Your task to perform on an android device: open app "Facebook" Image 0: 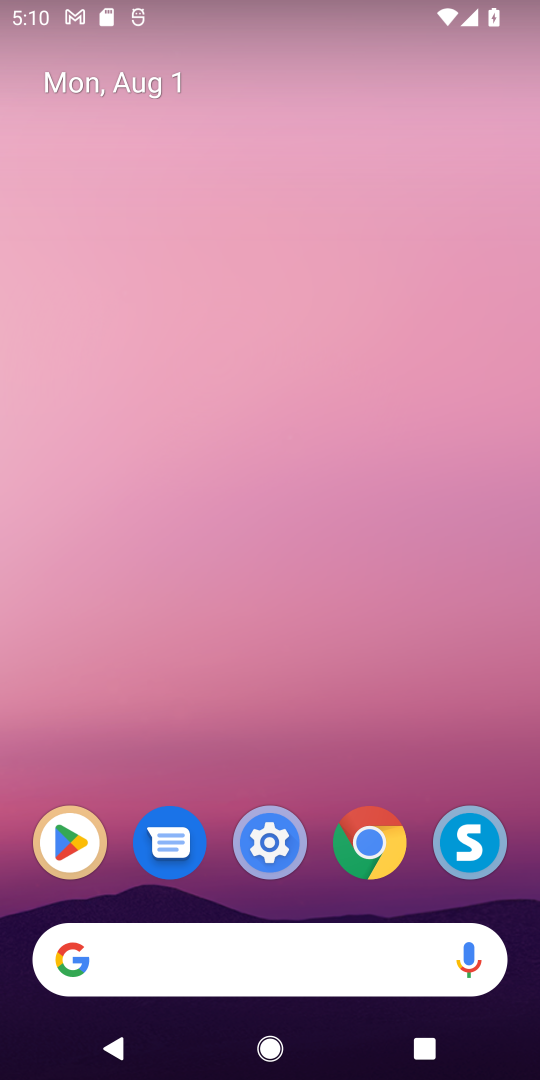
Step 0: drag from (372, 767) to (421, 49)
Your task to perform on an android device: open app "Facebook" Image 1: 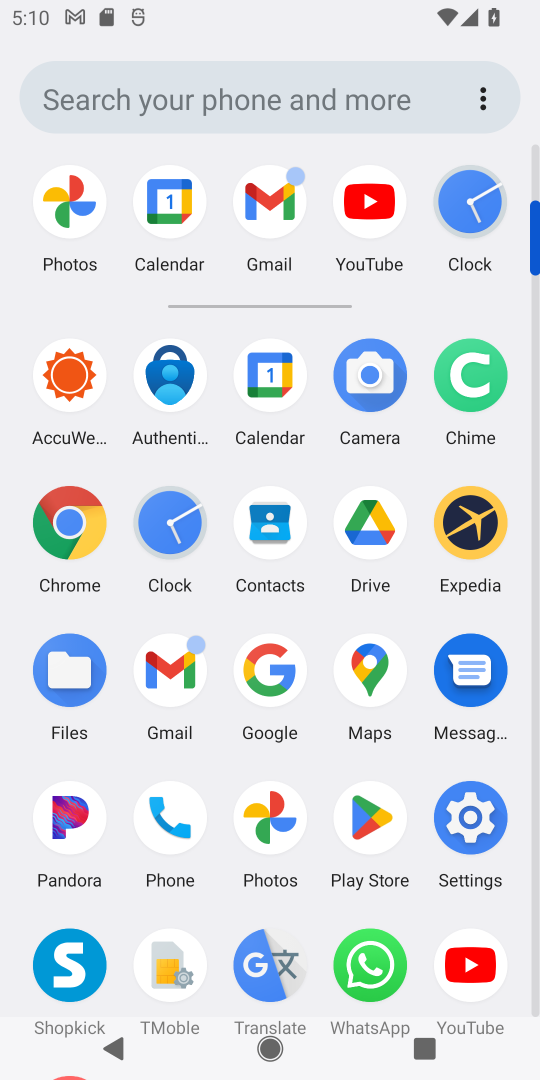
Step 1: click (366, 805)
Your task to perform on an android device: open app "Facebook" Image 2: 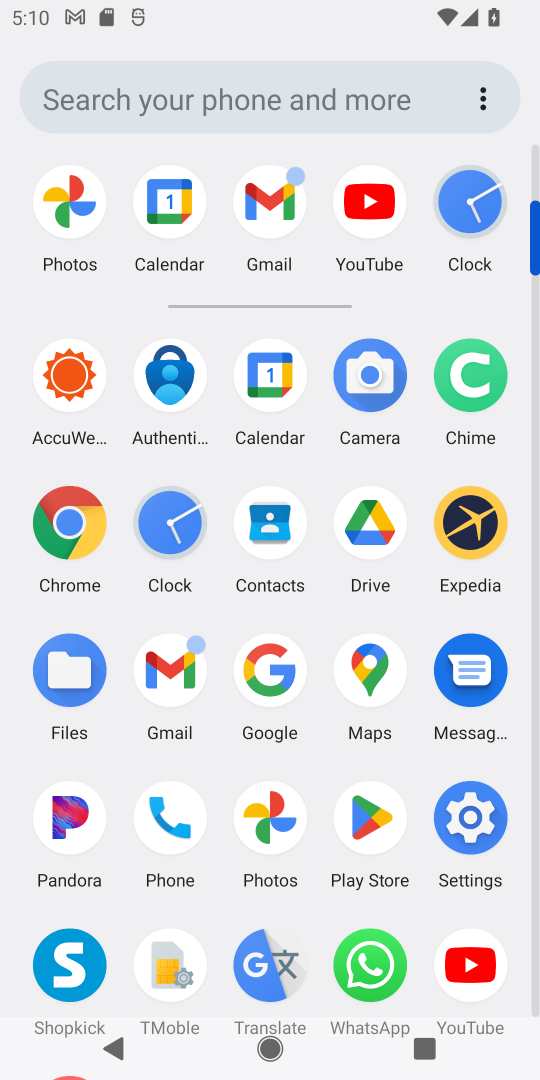
Step 2: click (398, 780)
Your task to perform on an android device: open app "Facebook" Image 3: 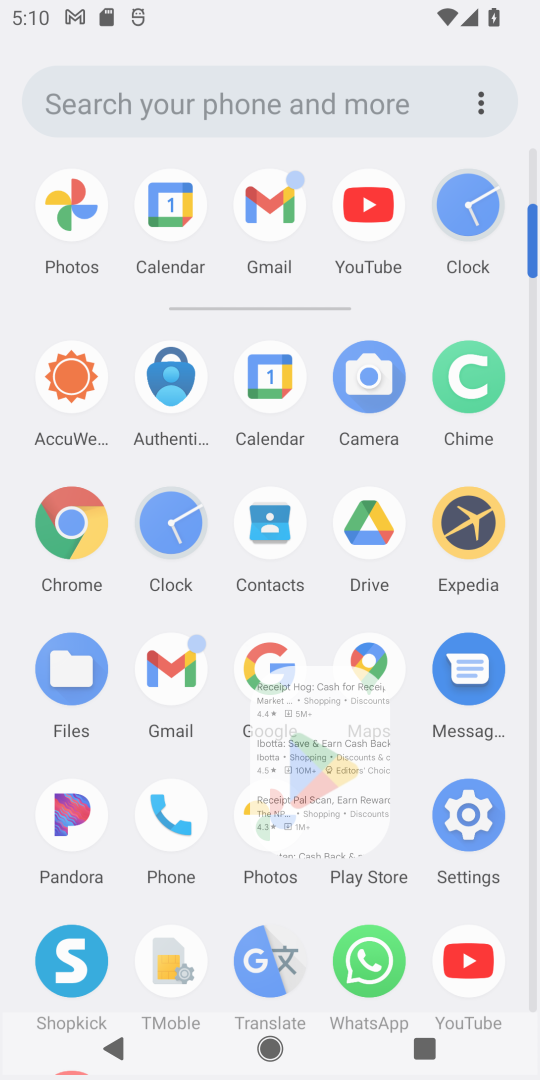
Step 3: click (399, 781)
Your task to perform on an android device: open app "Facebook" Image 4: 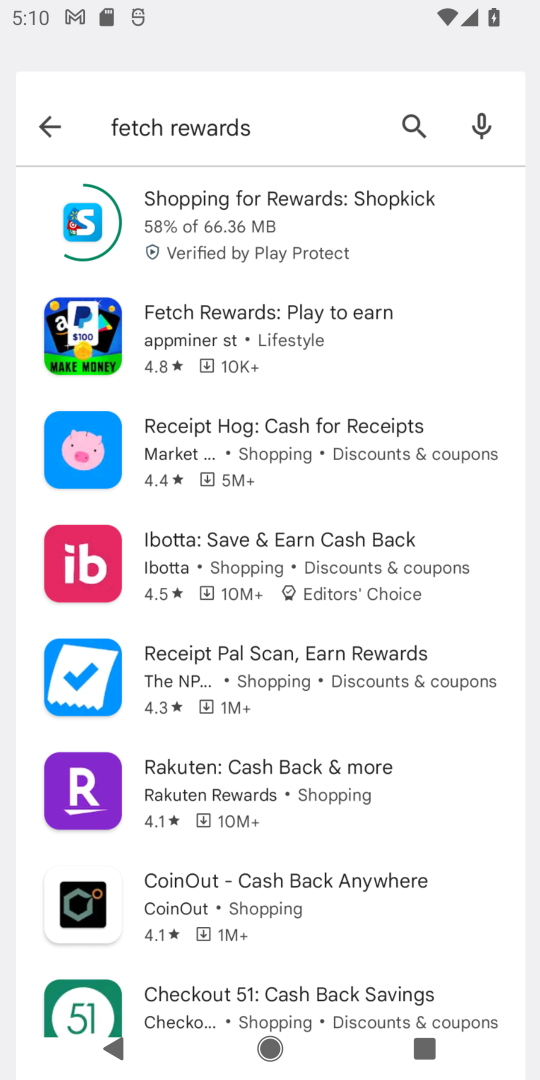
Step 4: click (399, 781)
Your task to perform on an android device: open app "Facebook" Image 5: 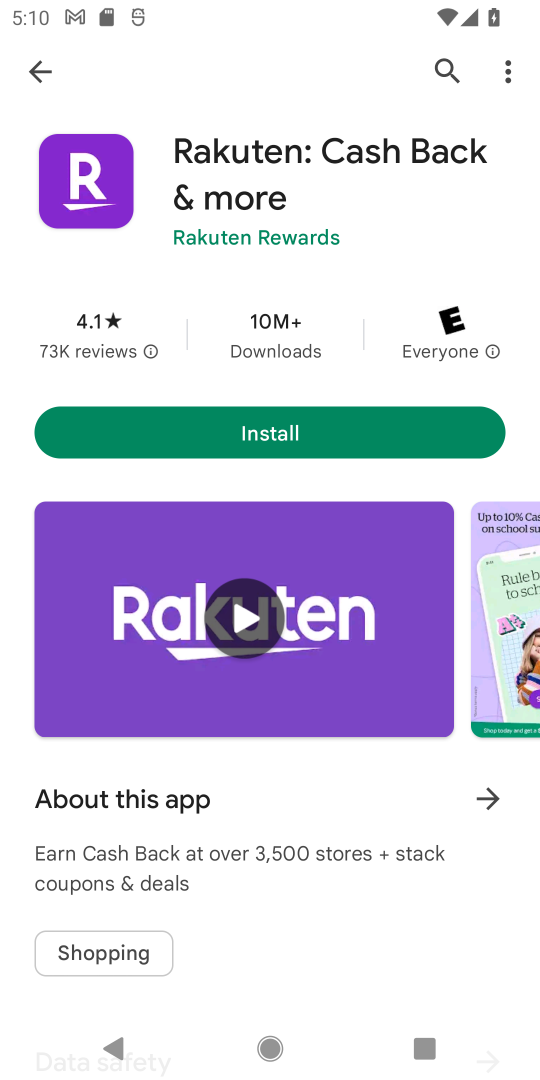
Step 5: click (29, 58)
Your task to perform on an android device: open app "Facebook" Image 6: 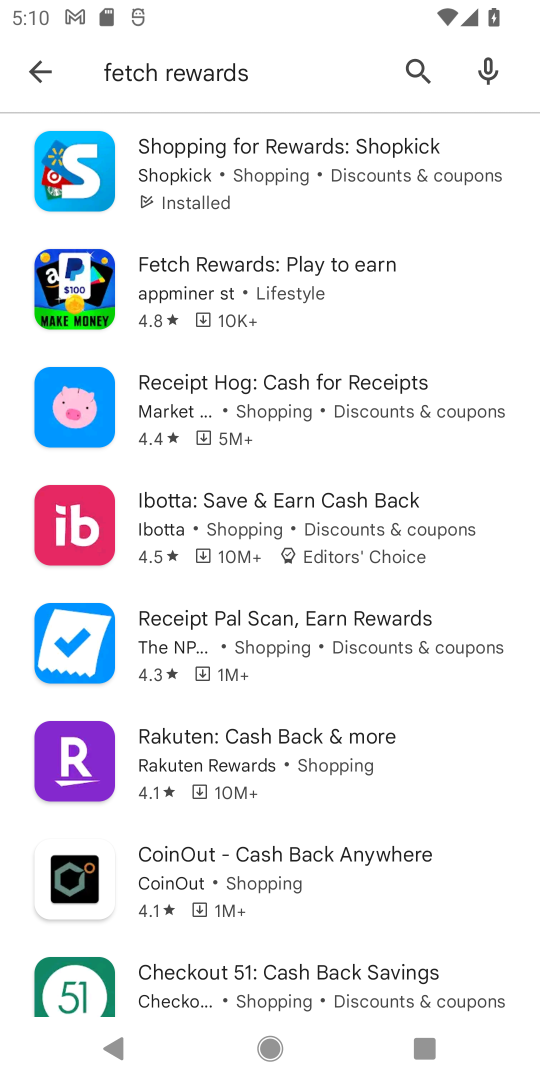
Step 6: click (40, 62)
Your task to perform on an android device: open app "Facebook" Image 7: 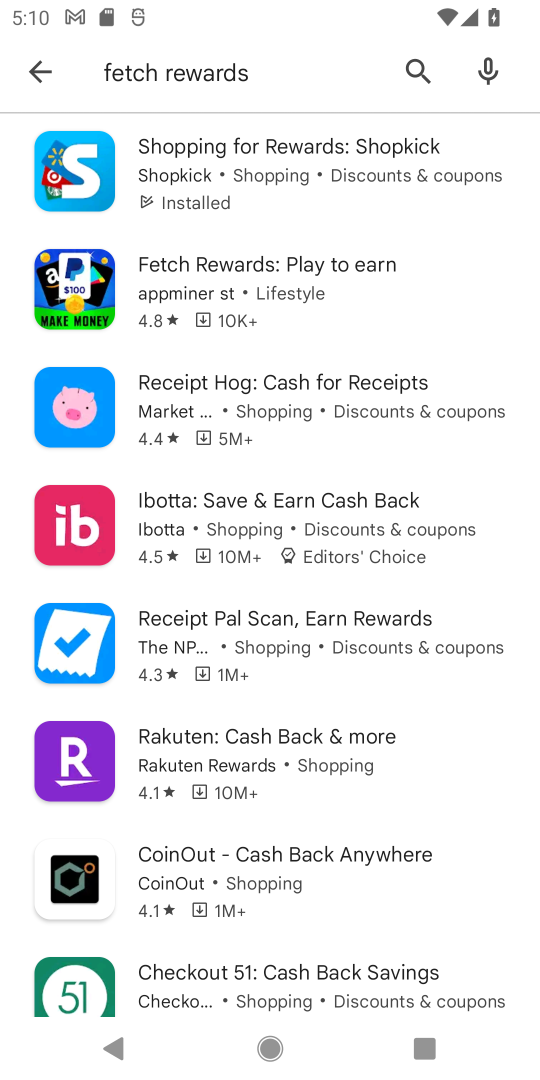
Step 7: click (40, 62)
Your task to perform on an android device: open app "Facebook" Image 8: 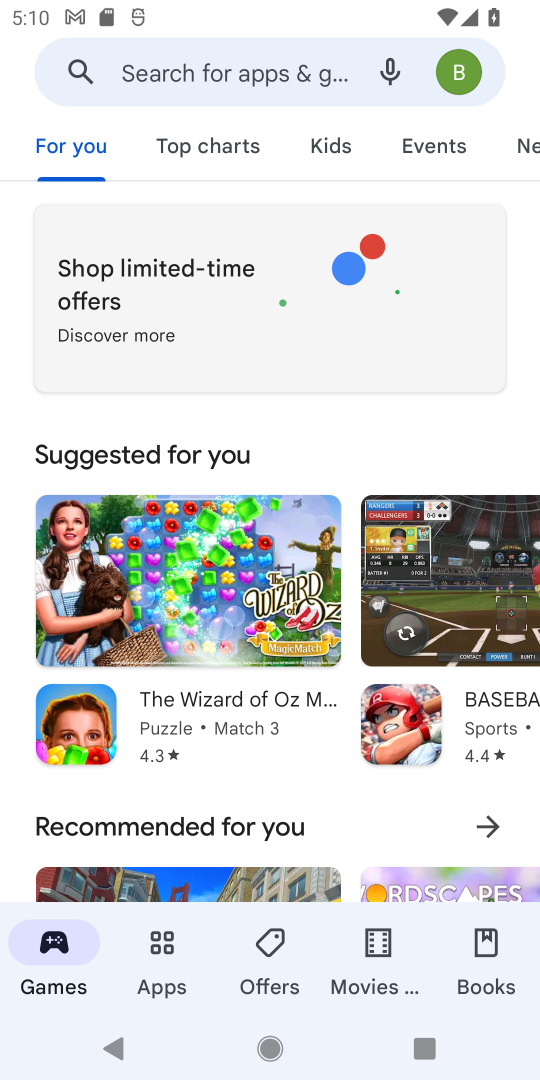
Step 8: click (133, 65)
Your task to perform on an android device: open app "Facebook" Image 9: 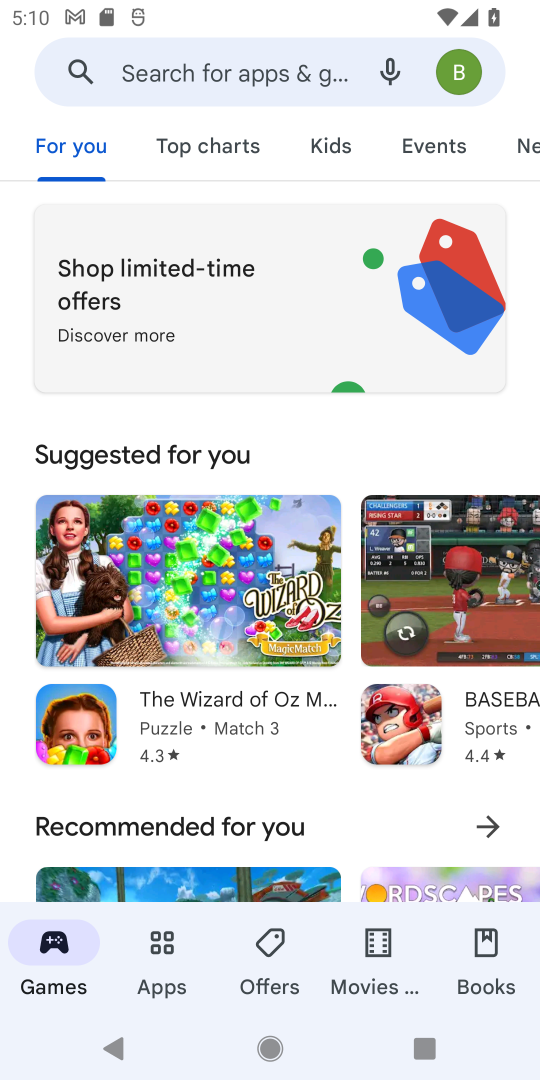
Step 9: click (135, 66)
Your task to perform on an android device: open app "Facebook" Image 10: 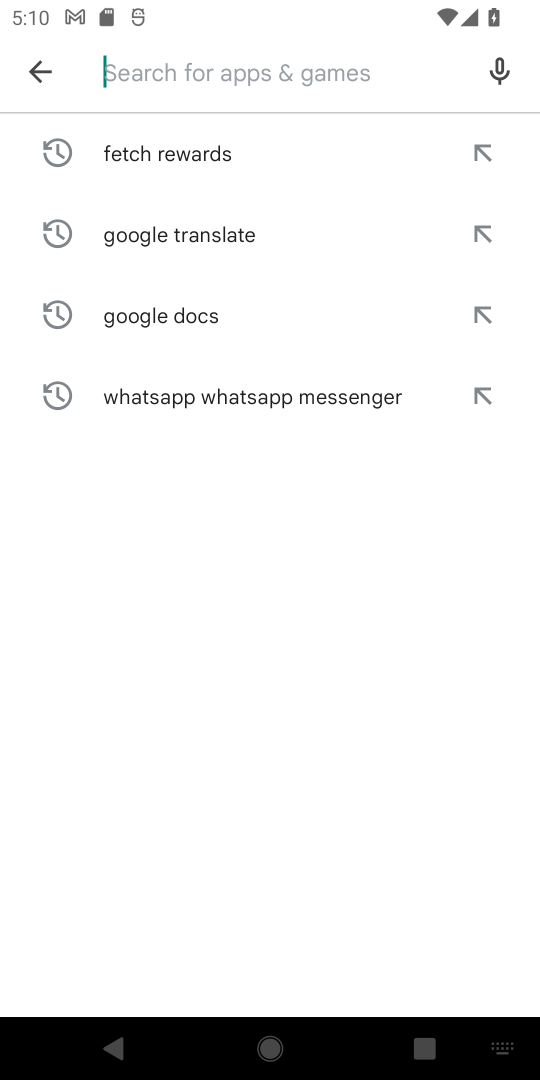
Step 10: click (181, 70)
Your task to perform on an android device: open app "Facebook" Image 11: 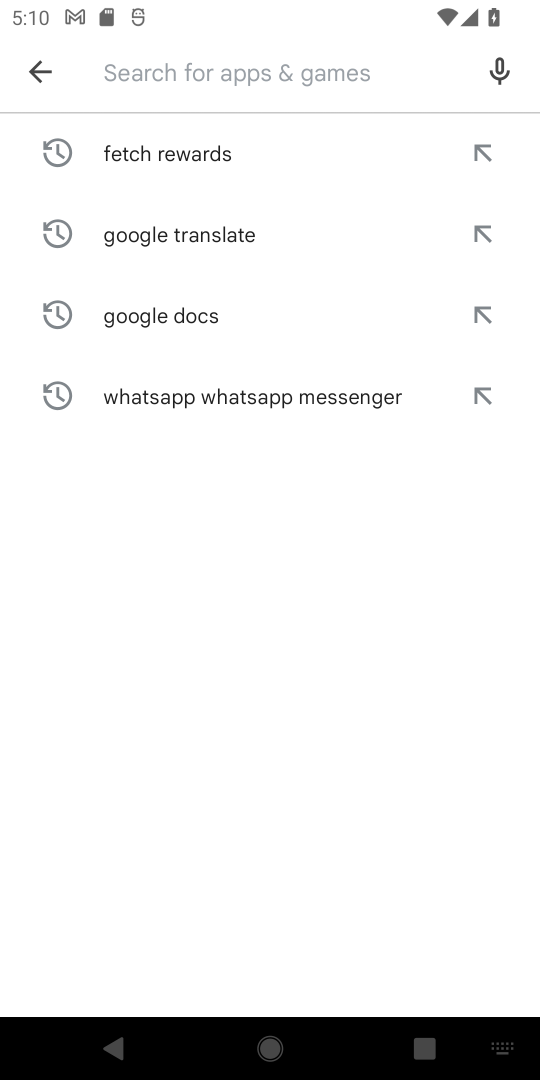
Step 11: click (188, 74)
Your task to perform on an android device: open app "Facebook" Image 12: 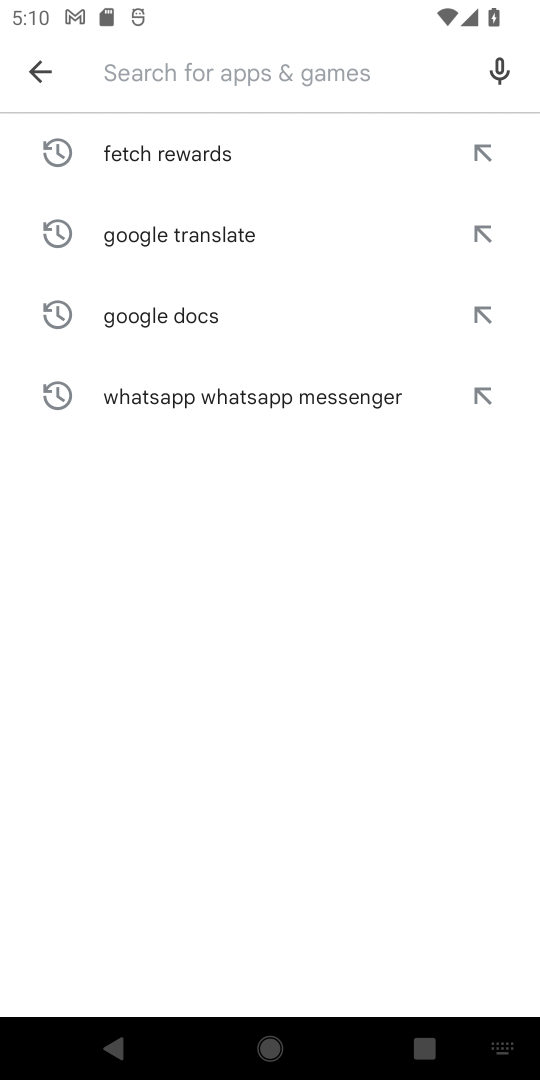
Step 12: click (202, 57)
Your task to perform on an android device: open app "Facebook" Image 13: 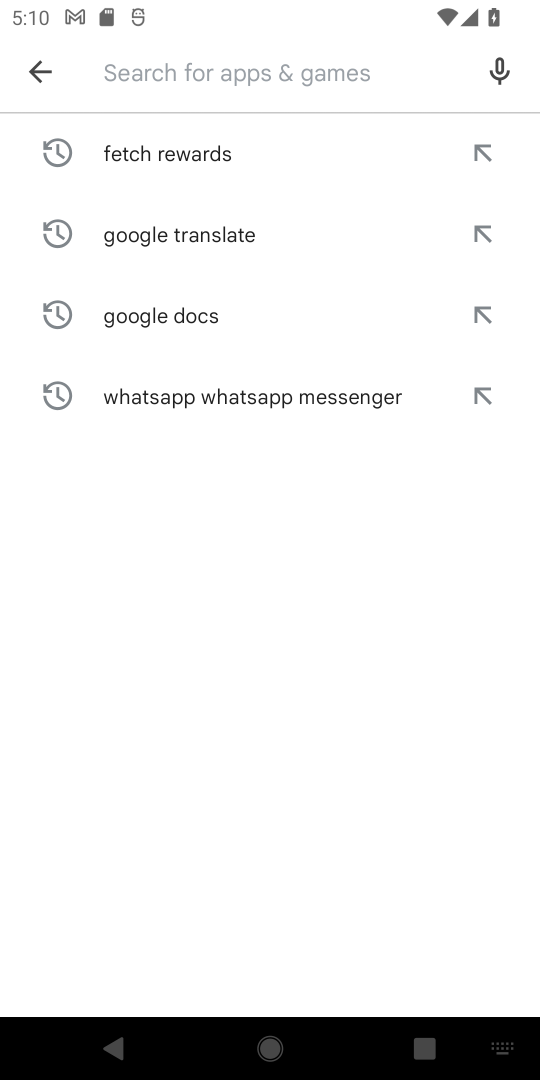
Step 13: click (204, 61)
Your task to perform on an android device: open app "Facebook" Image 14: 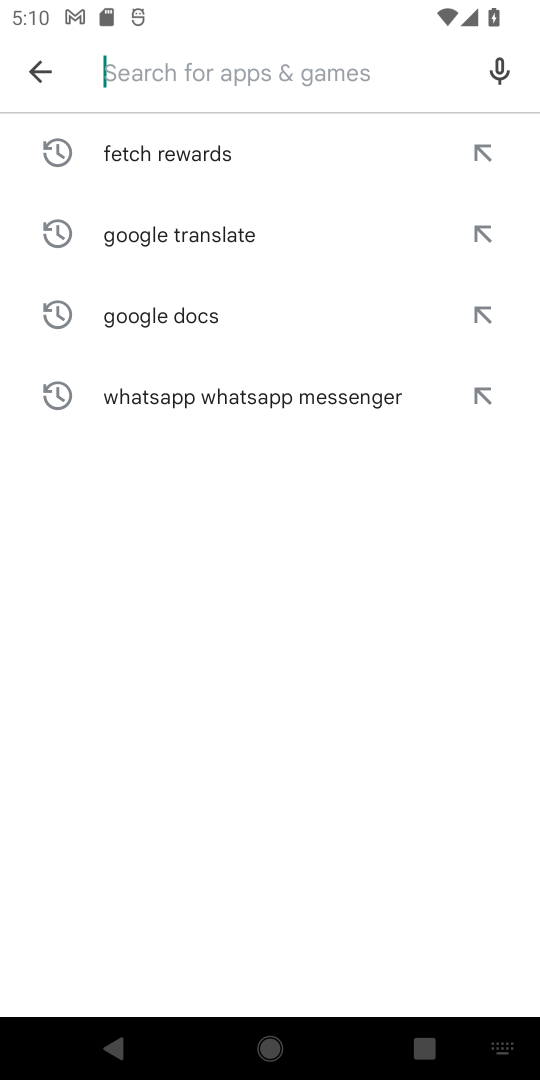
Step 14: type "facebook"
Your task to perform on an android device: open app "Facebook" Image 15: 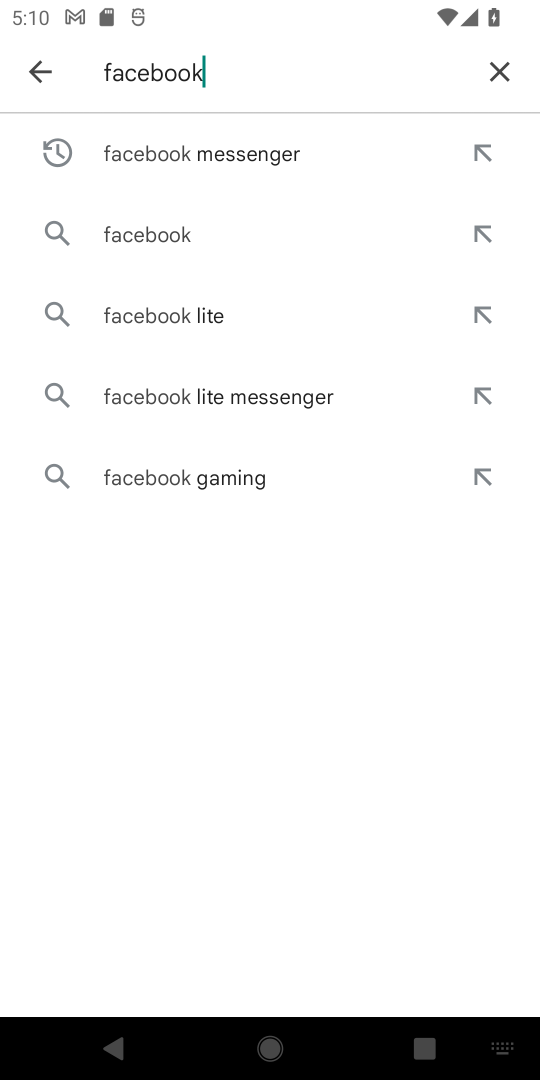
Step 15: click (157, 121)
Your task to perform on an android device: open app "Facebook" Image 16: 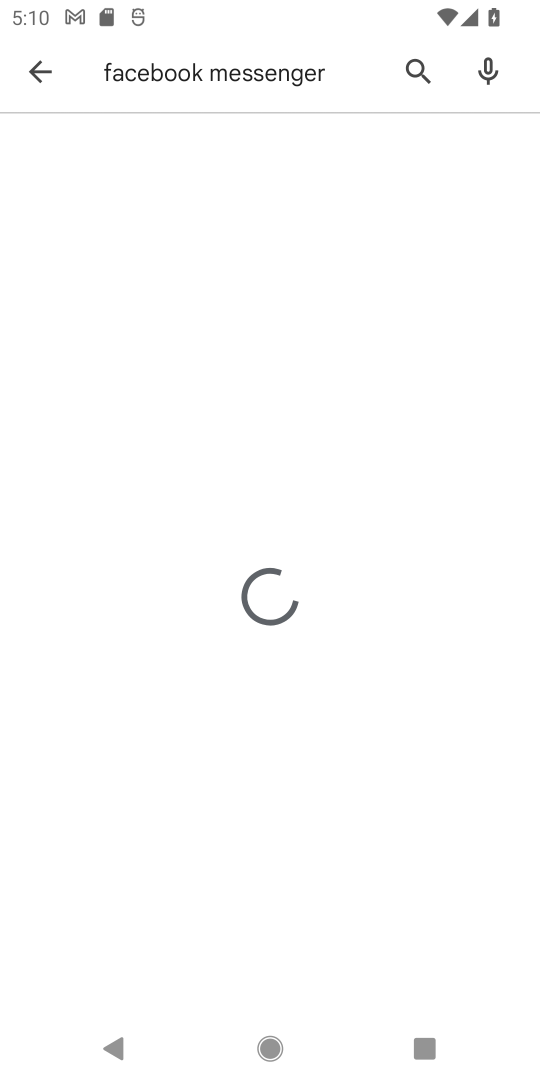
Step 16: click (163, 232)
Your task to perform on an android device: open app "Facebook" Image 17: 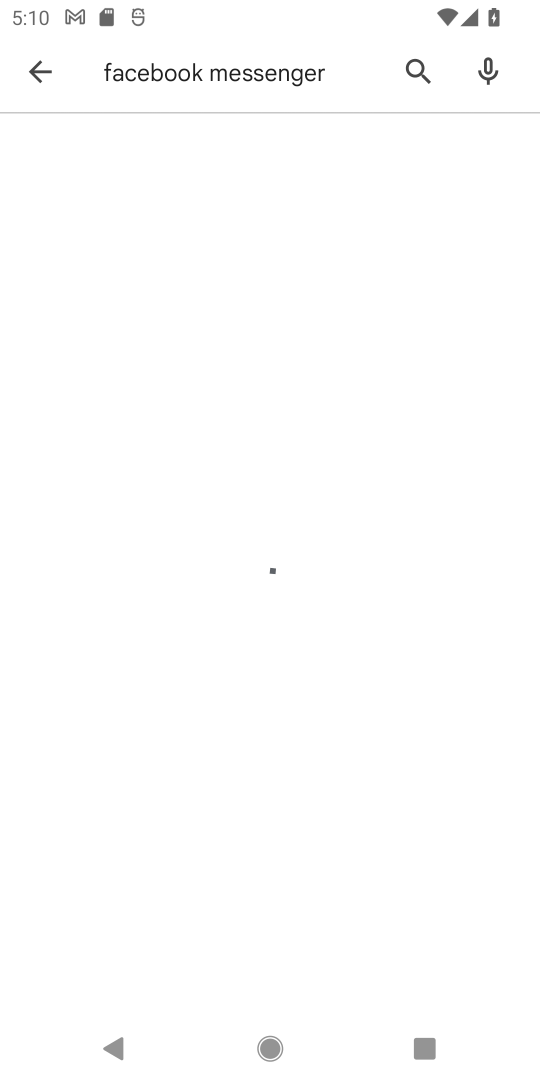
Step 17: click (164, 231)
Your task to perform on an android device: open app "Facebook" Image 18: 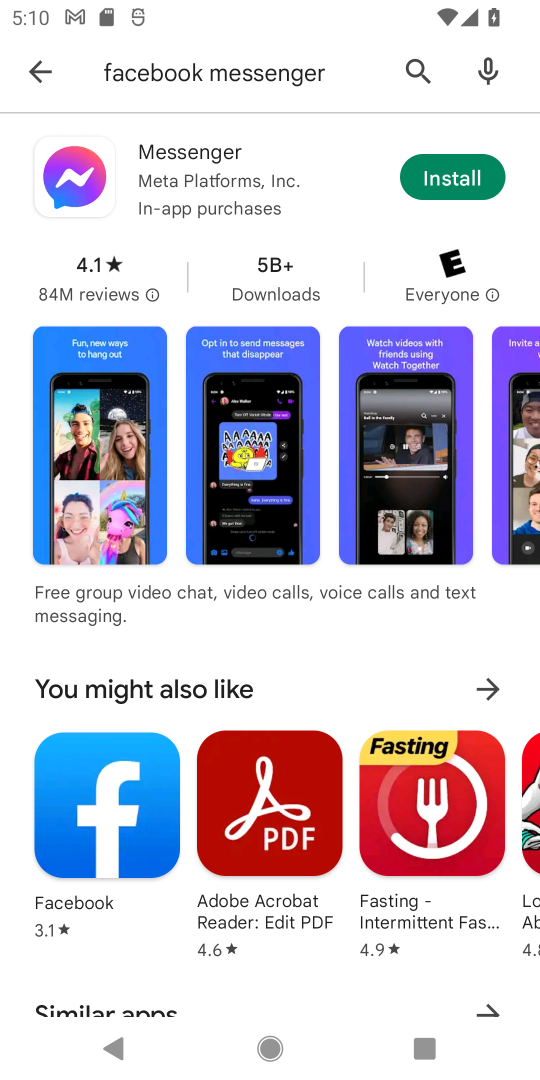
Step 18: click (42, 66)
Your task to perform on an android device: open app "Facebook" Image 19: 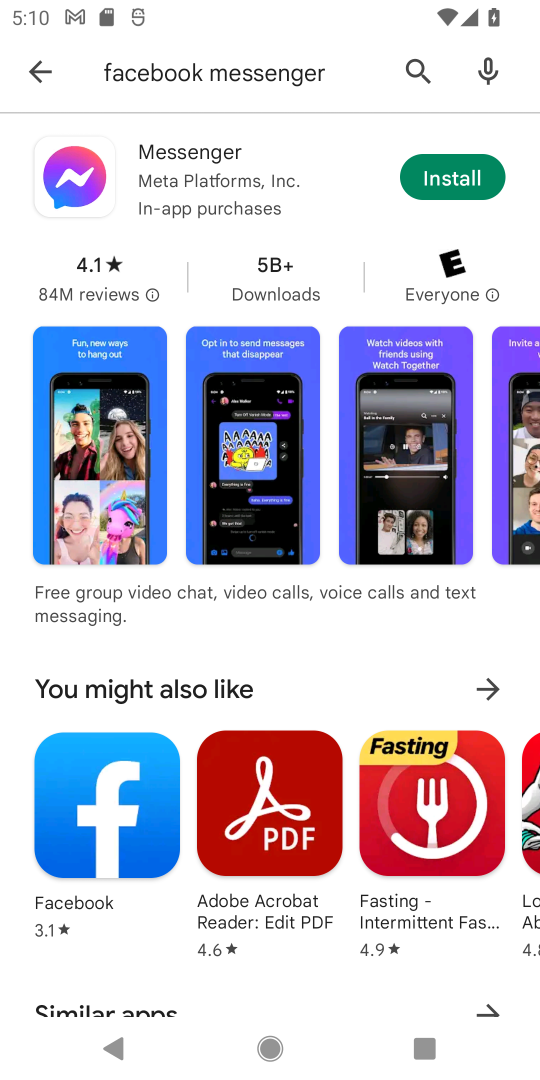
Step 19: click (114, 847)
Your task to perform on an android device: open app "Facebook" Image 20: 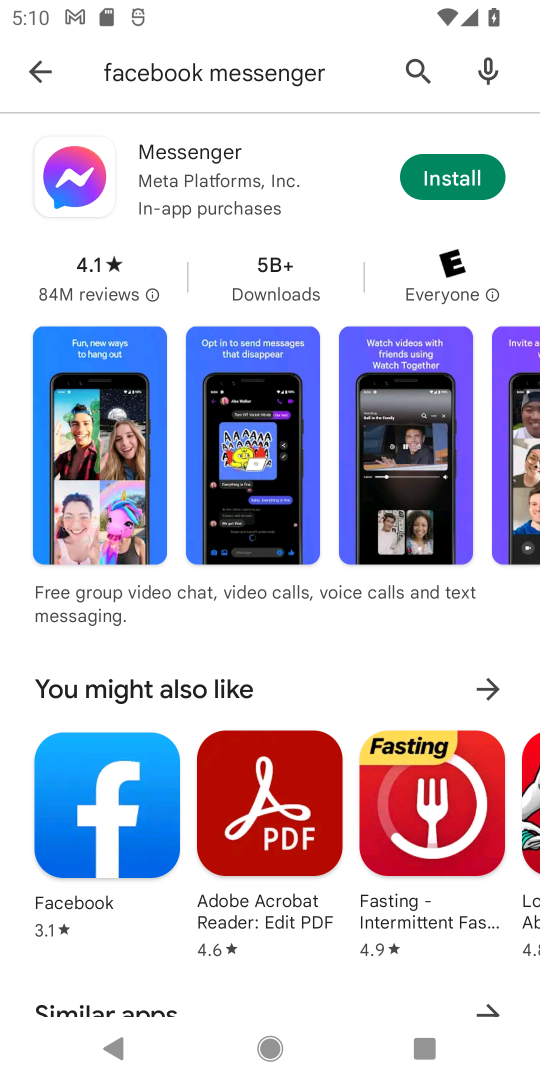
Step 20: click (116, 845)
Your task to perform on an android device: open app "Facebook" Image 21: 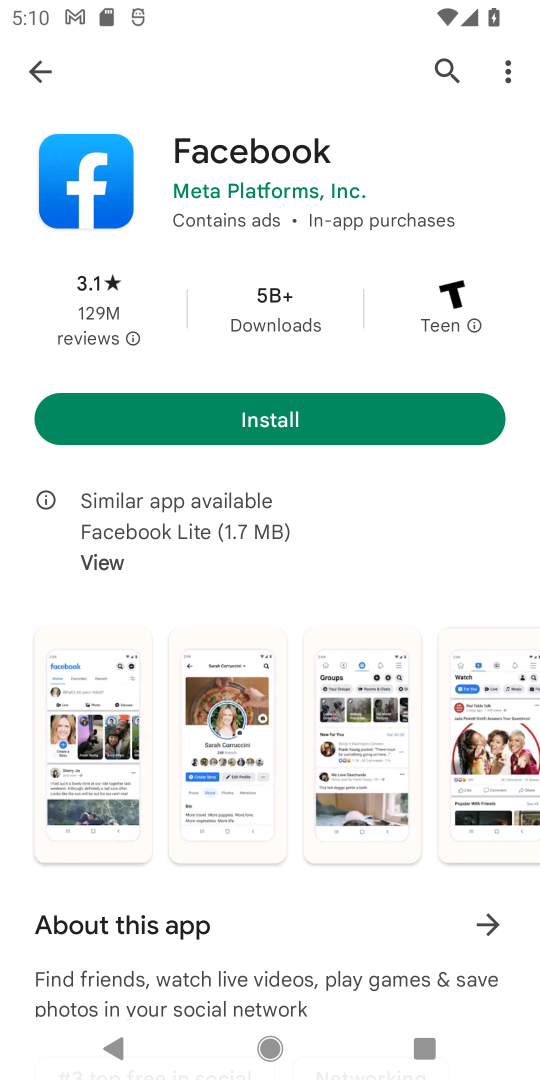
Step 21: click (261, 415)
Your task to perform on an android device: open app "Facebook" Image 22: 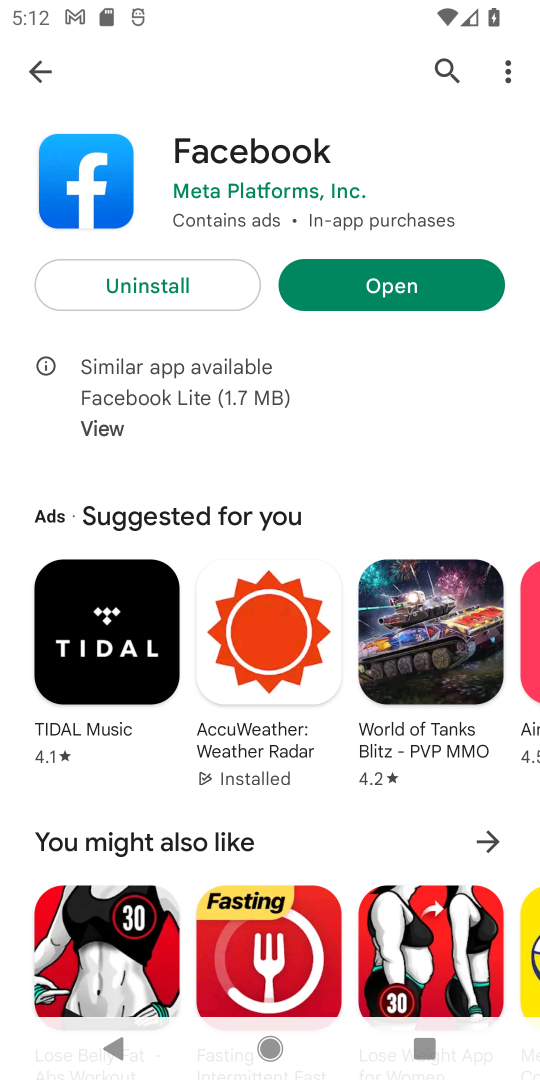
Step 22: click (423, 279)
Your task to perform on an android device: open app "Facebook" Image 23: 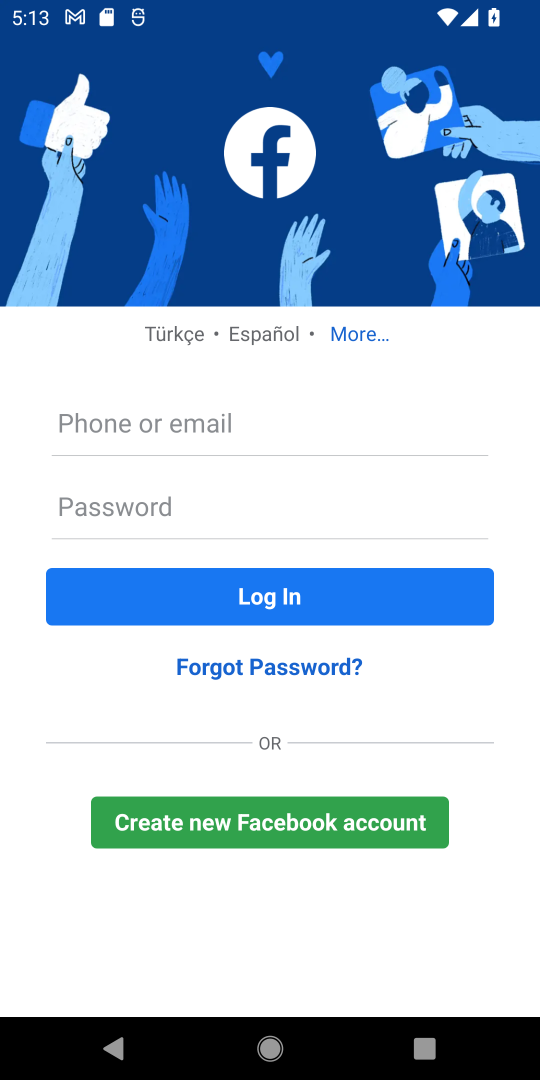
Step 23: task complete